Your task to perform on an android device: Open battery settings Image 0: 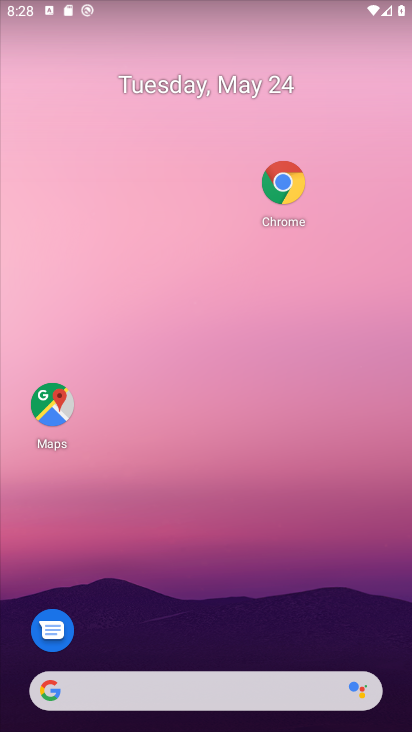
Step 0: press home button
Your task to perform on an android device: Open battery settings Image 1: 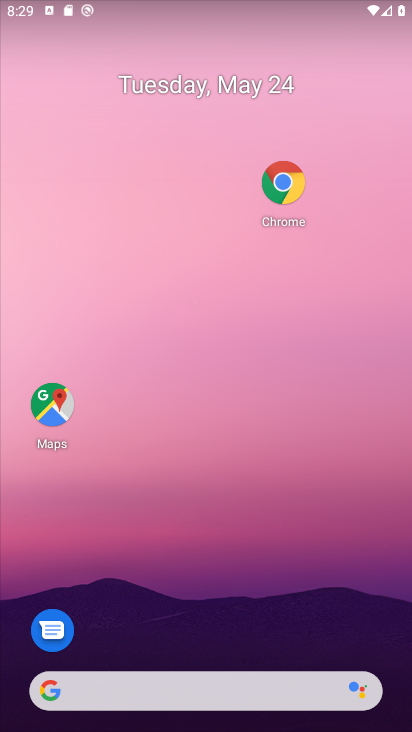
Step 1: drag from (198, 703) to (64, 70)
Your task to perform on an android device: Open battery settings Image 2: 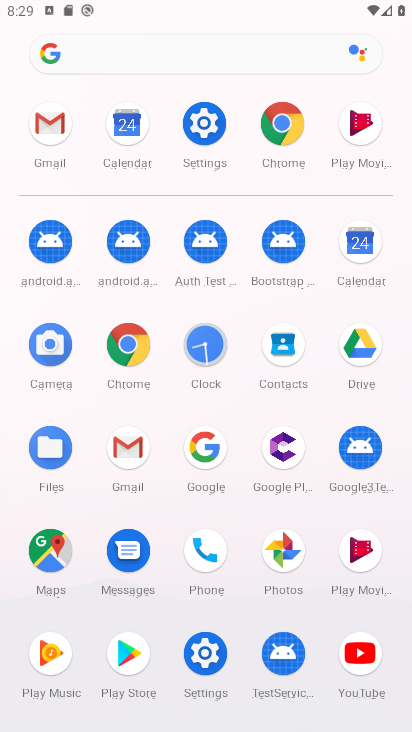
Step 2: click (201, 648)
Your task to perform on an android device: Open battery settings Image 3: 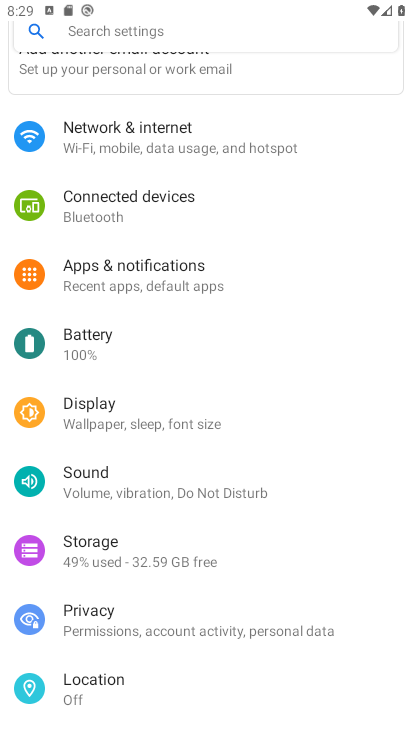
Step 3: click (130, 348)
Your task to perform on an android device: Open battery settings Image 4: 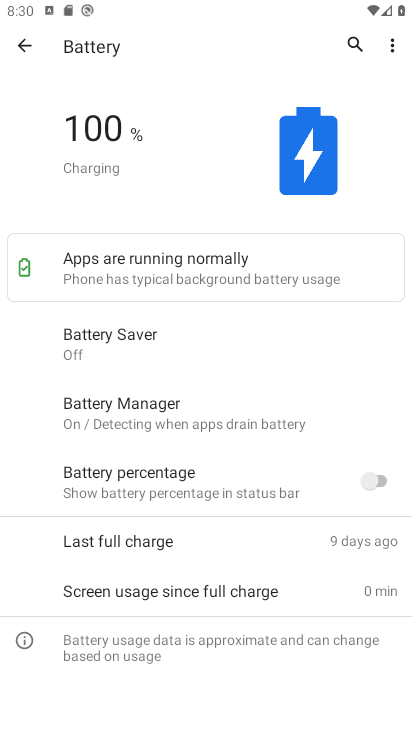
Step 4: task complete